Your task to perform on an android device: Open eBay Image 0: 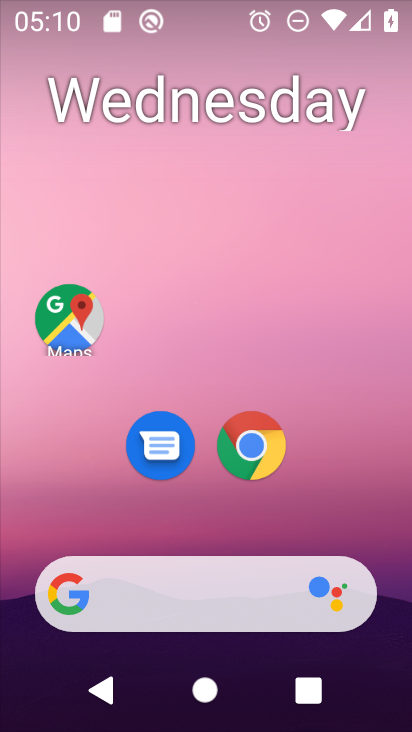
Step 0: click (144, 601)
Your task to perform on an android device: Open eBay Image 1: 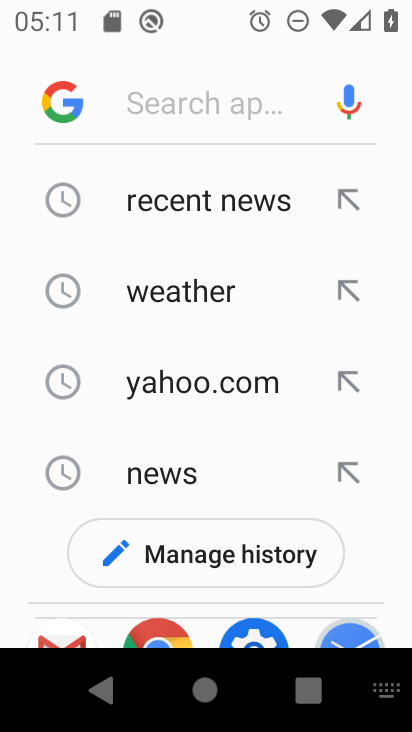
Step 1: type "ebay"
Your task to perform on an android device: Open eBay Image 2: 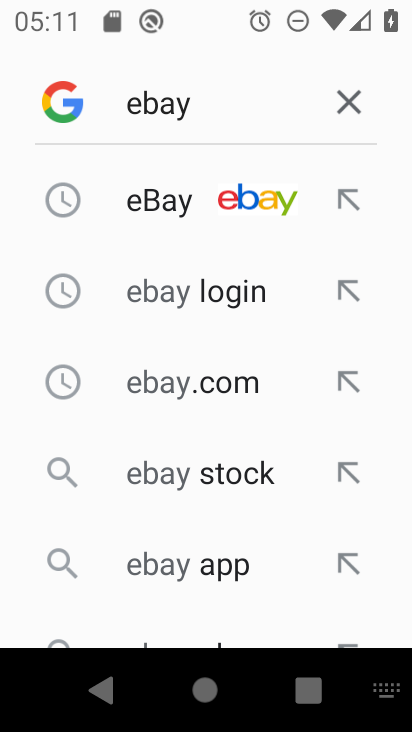
Step 2: click (239, 201)
Your task to perform on an android device: Open eBay Image 3: 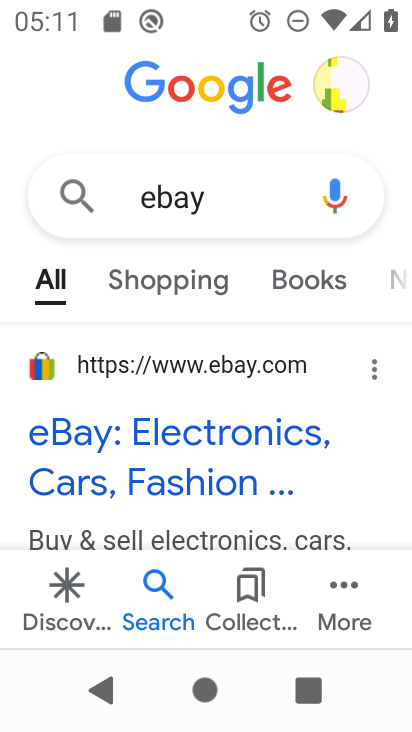
Step 3: click (217, 448)
Your task to perform on an android device: Open eBay Image 4: 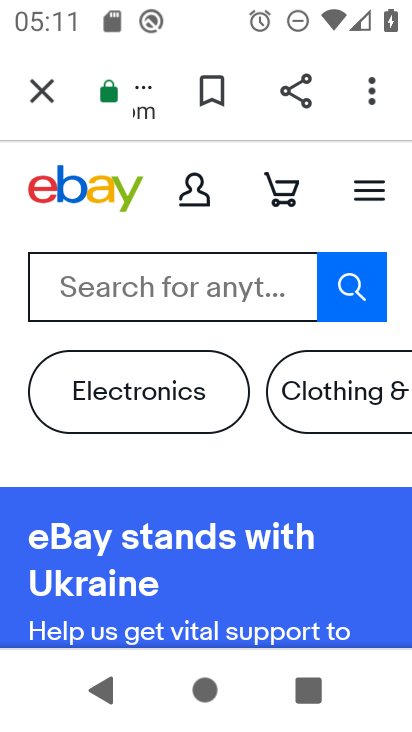
Step 4: task complete